Your task to perform on an android device: Go to Reddit.com Image 0: 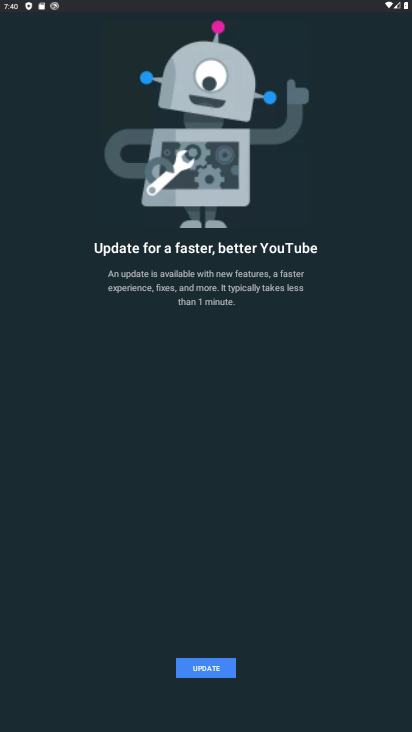
Step 0: press home button
Your task to perform on an android device: Go to Reddit.com Image 1: 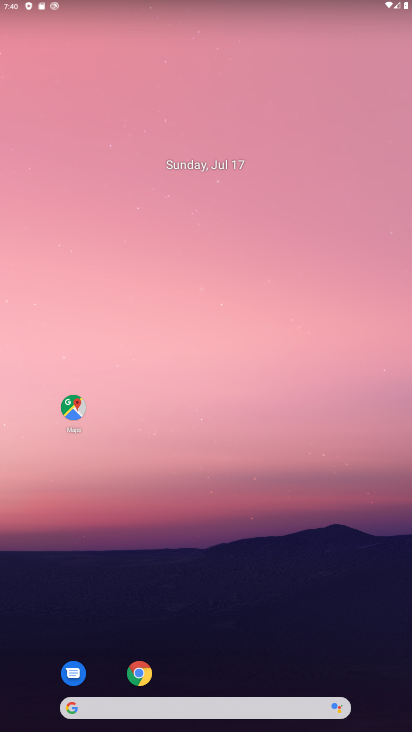
Step 1: click (145, 693)
Your task to perform on an android device: Go to Reddit.com Image 2: 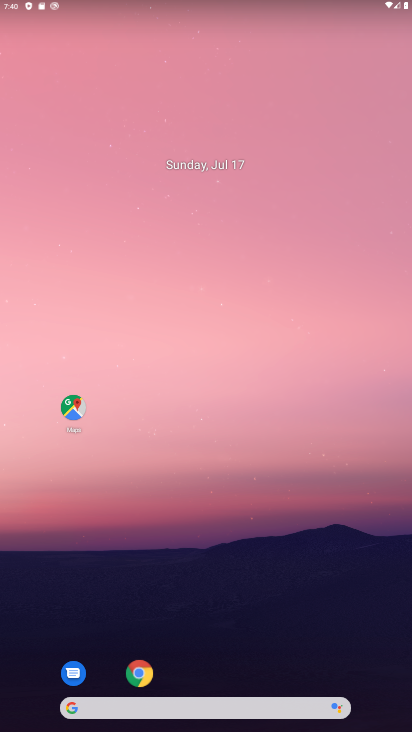
Step 2: click (147, 703)
Your task to perform on an android device: Go to Reddit.com Image 3: 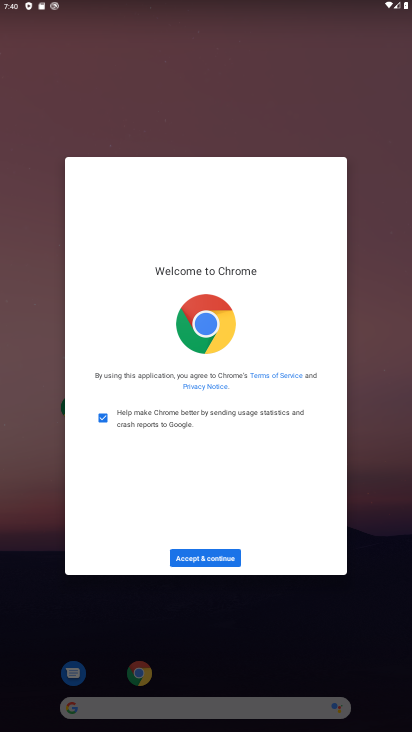
Step 3: click (205, 553)
Your task to perform on an android device: Go to Reddit.com Image 4: 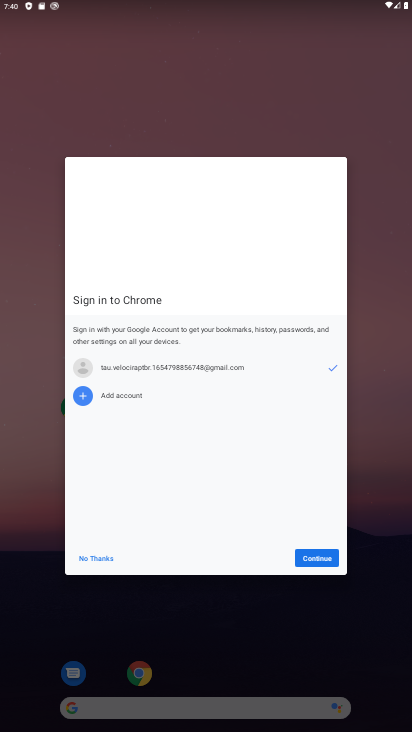
Step 4: click (327, 558)
Your task to perform on an android device: Go to Reddit.com Image 5: 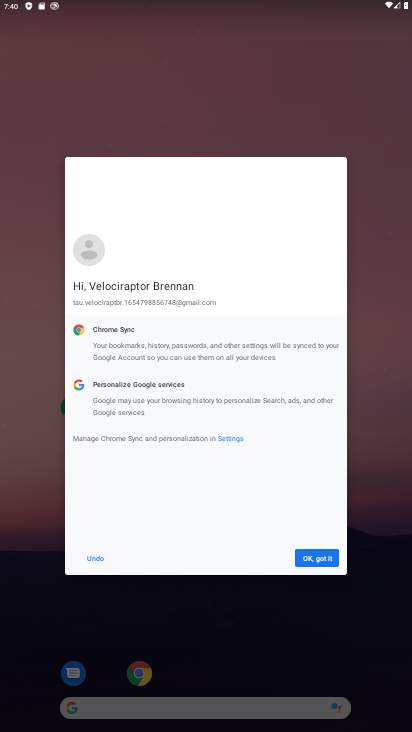
Step 5: click (312, 555)
Your task to perform on an android device: Go to Reddit.com Image 6: 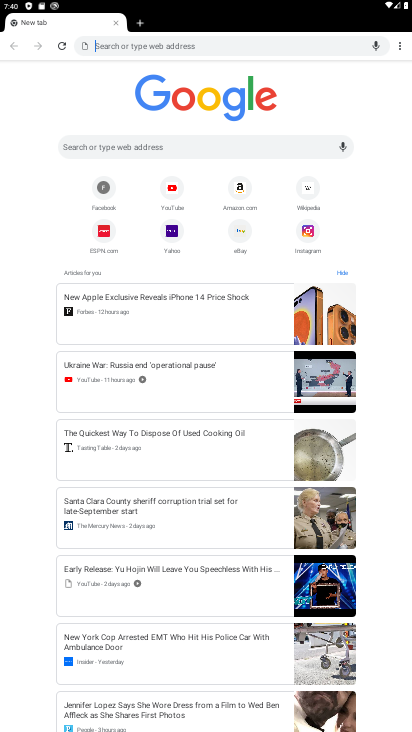
Step 6: click (109, 136)
Your task to perform on an android device: Go to Reddit.com Image 7: 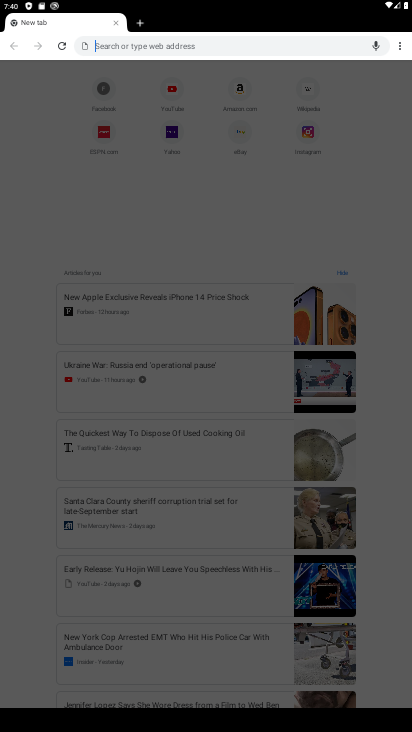
Step 7: type "Reddit.com"
Your task to perform on an android device: Go to Reddit.com Image 8: 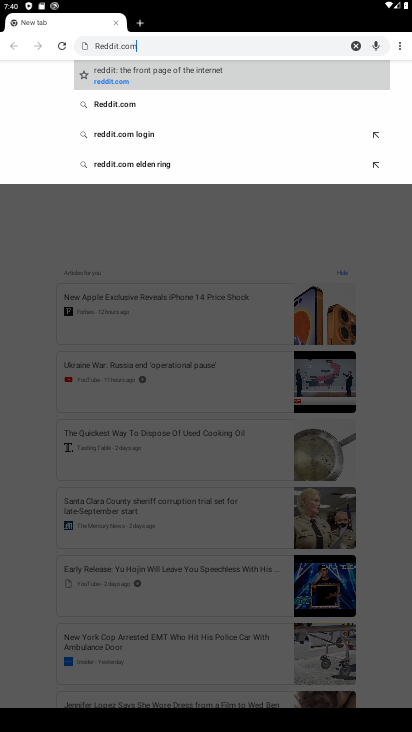
Step 8: type ""
Your task to perform on an android device: Go to Reddit.com Image 9: 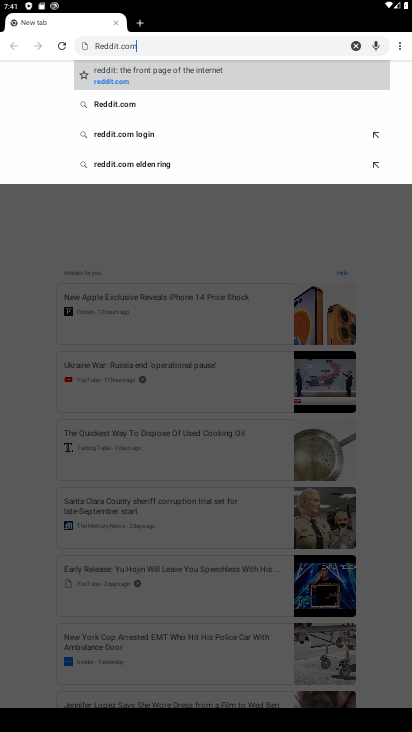
Step 9: task complete